Your task to perform on an android device: install app "DoorDash - Food Delivery" Image 0: 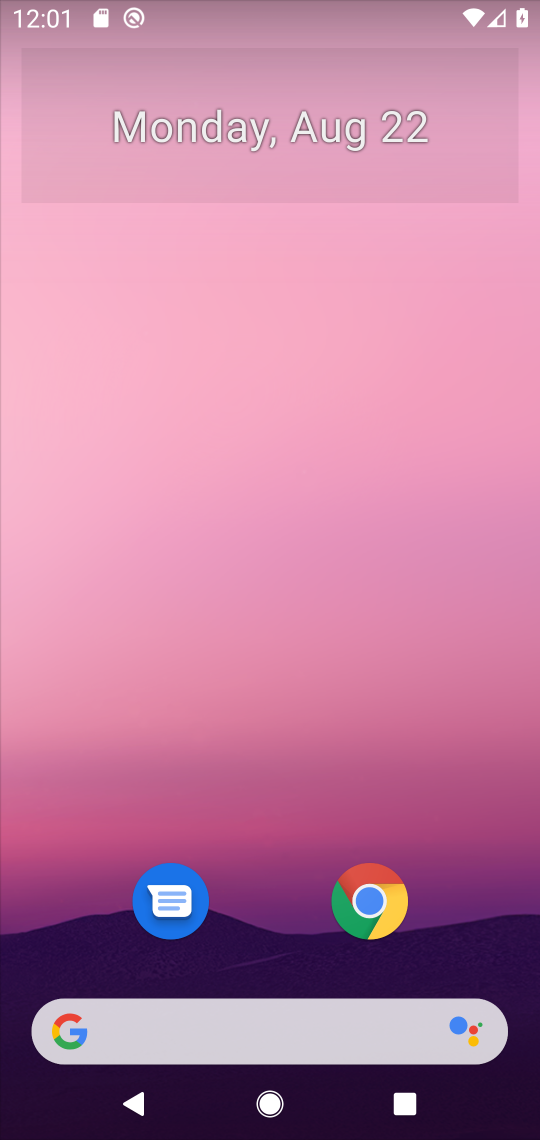
Step 0: drag from (256, 990) to (313, 77)
Your task to perform on an android device: install app "DoorDash - Food Delivery" Image 1: 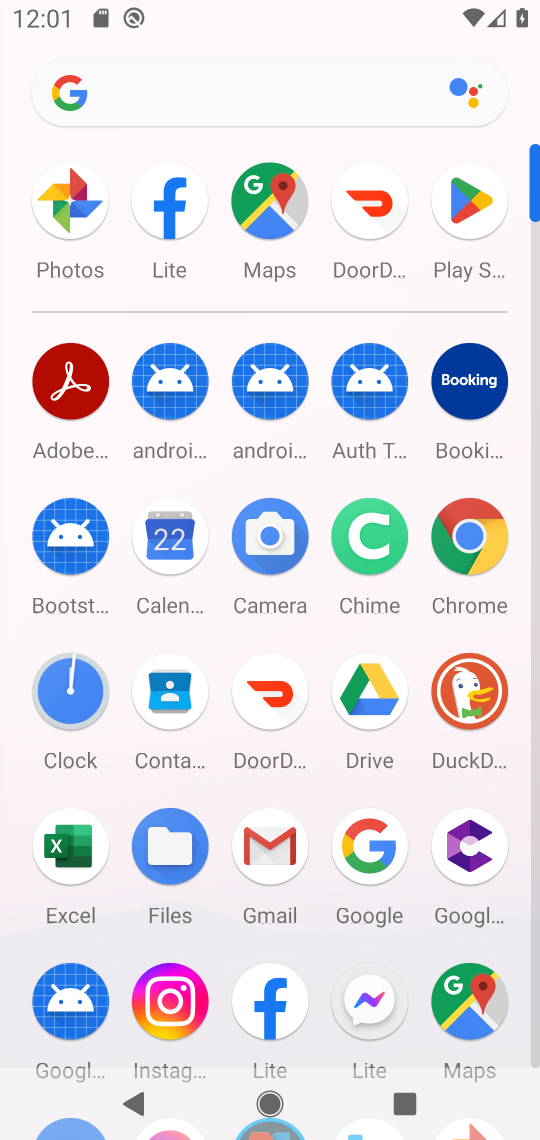
Step 1: click (390, 240)
Your task to perform on an android device: install app "DoorDash - Food Delivery" Image 2: 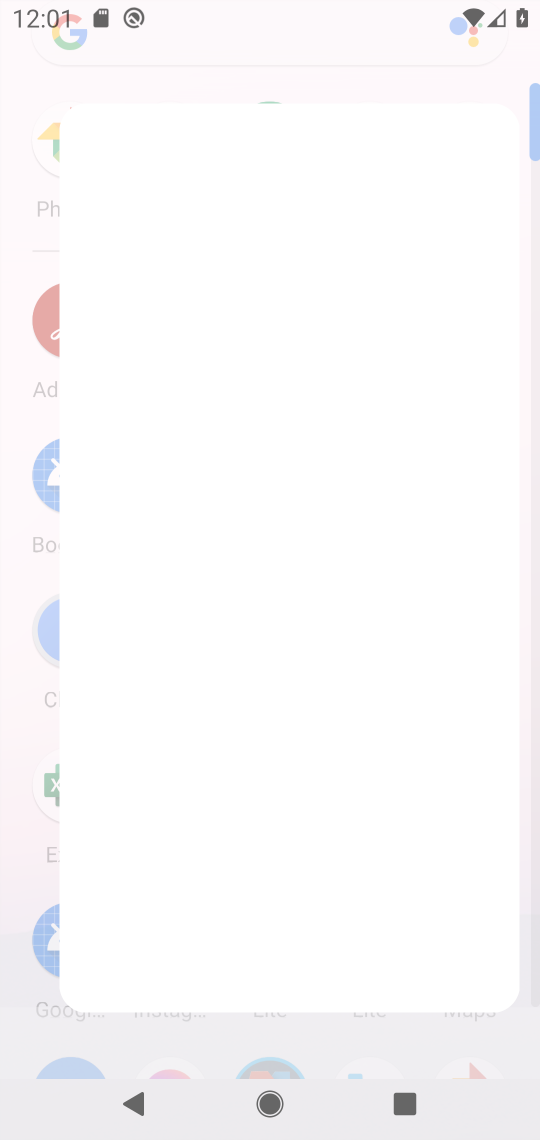
Step 2: task complete